Your task to perform on an android device: delete the emails in spam in the gmail app Image 0: 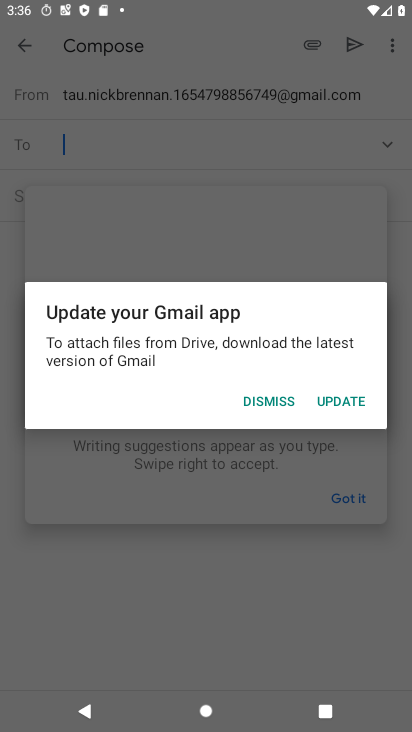
Step 0: press home button
Your task to perform on an android device: delete the emails in spam in the gmail app Image 1: 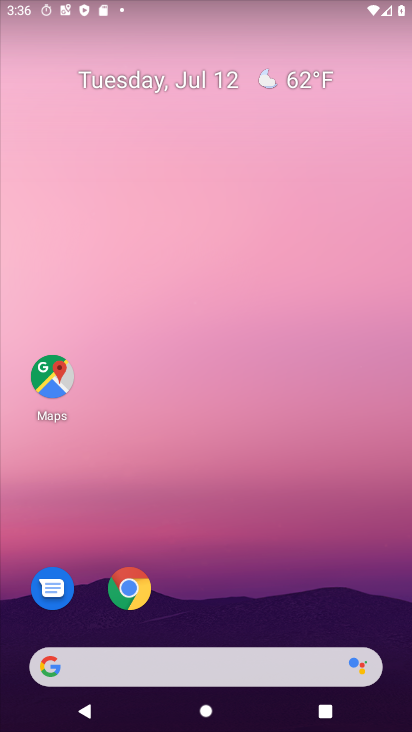
Step 1: drag from (202, 631) to (210, 14)
Your task to perform on an android device: delete the emails in spam in the gmail app Image 2: 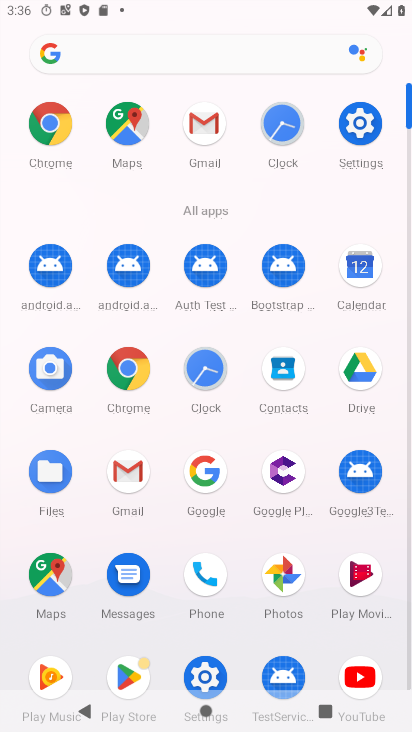
Step 2: click (134, 483)
Your task to perform on an android device: delete the emails in spam in the gmail app Image 3: 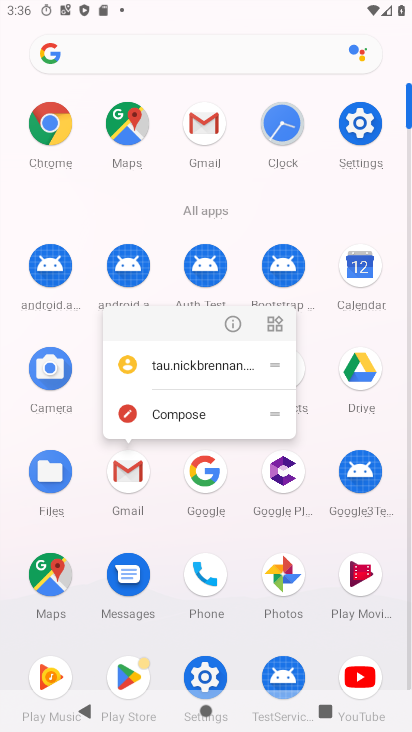
Step 3: click (127, 480)
Your task to perform on an android device: delete the emails in spam in the gmail app Image 4: 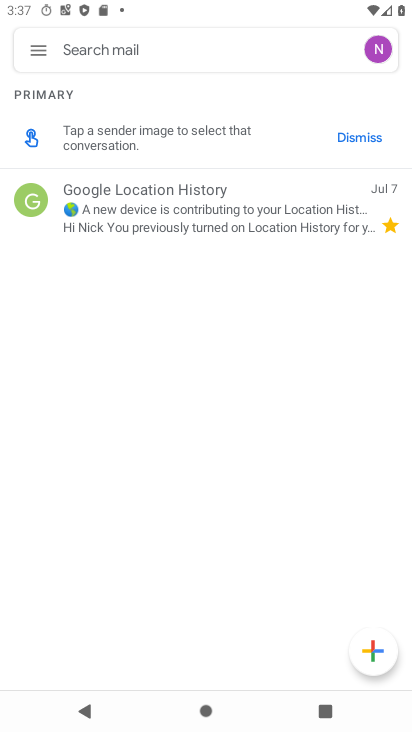
Step 4: click (34, 47)
Your task to perform on an android device: delete the emails in spam in the gmail app Image 5: 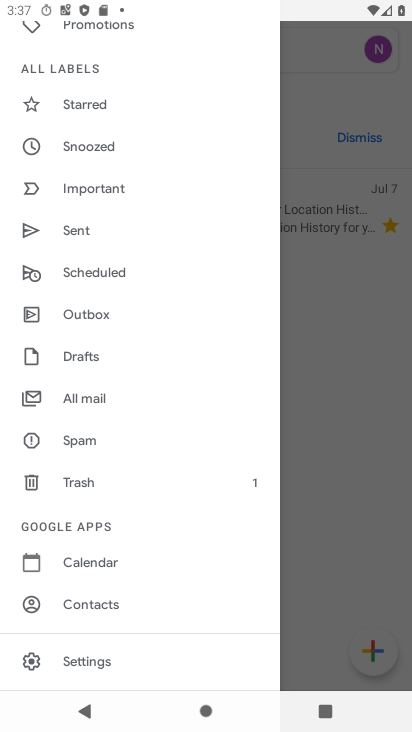
Step 5: click (84, 431)
Your task to perform on an android device: delete the emails in spam in the gmail app Image 6: 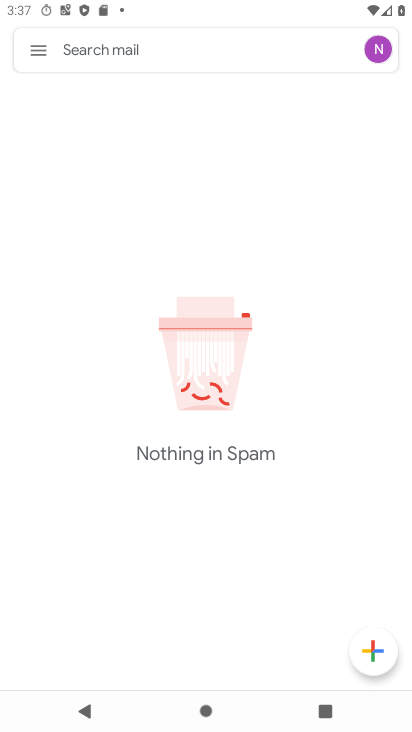
Step 6: task complete